Your task to perform on an android device: add a label to a message in the gmail app Image 0: 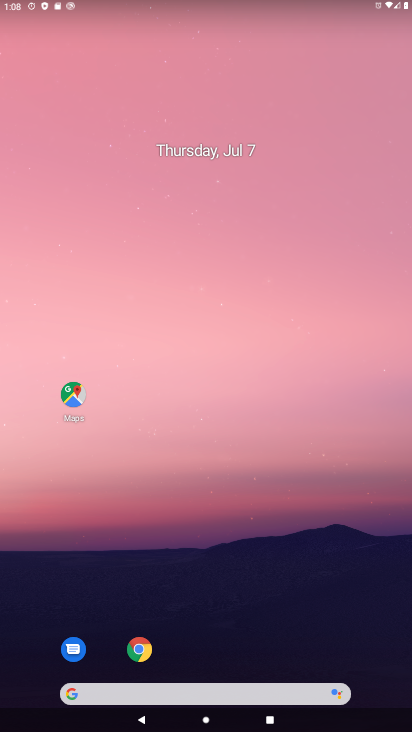
Step 0: task complete